Your task to perform on an android device: Open maps Image 0: 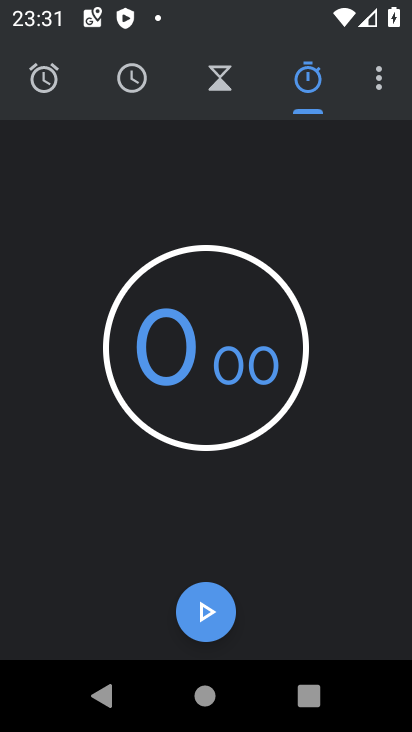
Step 0: press home button
Your task to perform on an android device: Open maps Image 1: 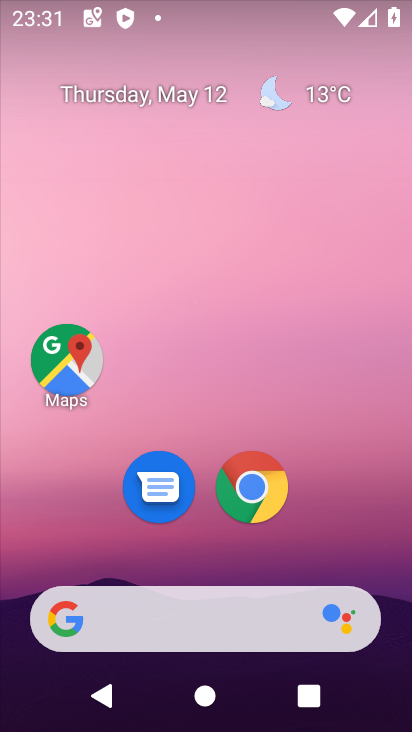
Step 1: click (71, 341)
Your task to perform on an android device: Open maps Image 2: 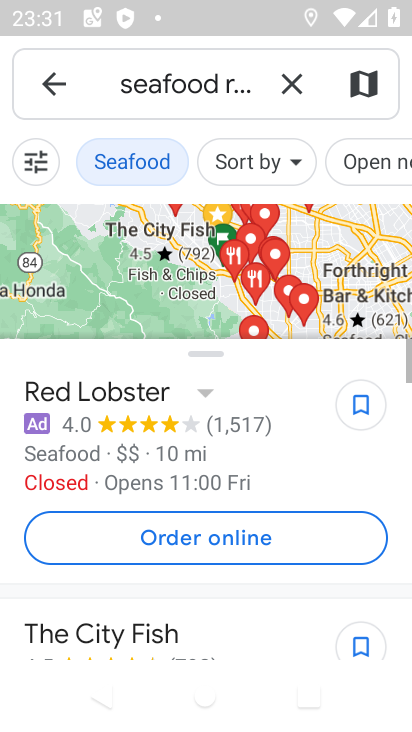
Step 2: task complete